Your task to perform on an android device: clear all cookies in the chrome app Image 0: 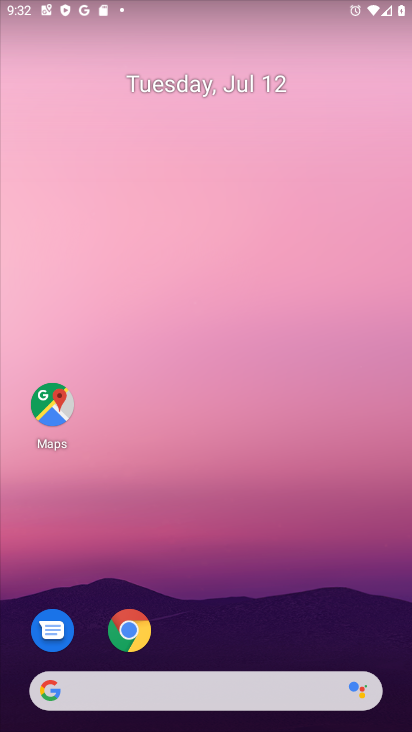
Step 0: click (125, 629)
Your task to perform on an android device: clear all cookies in the chrome app Image 1: 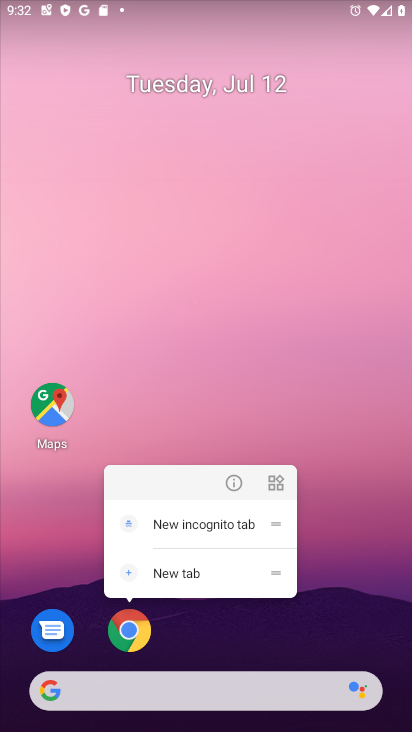
Step 1: click (130, 634)
Your task to perform on an android device: clear all cookies in the chrome app Image 2: 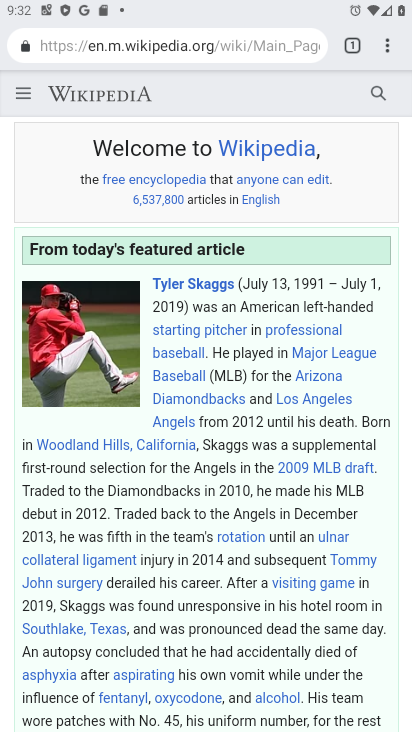
Step 2: click (385, 46)
Your task to perform on an android device: clear all cookies in the chrome app Image 3: 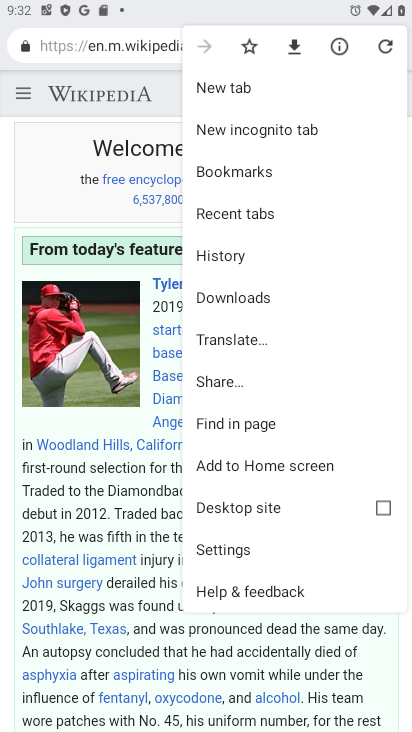
Step 3: click (233, 541)
Your task to perform on an android device: clear all cookies in the chrome app Image 4: 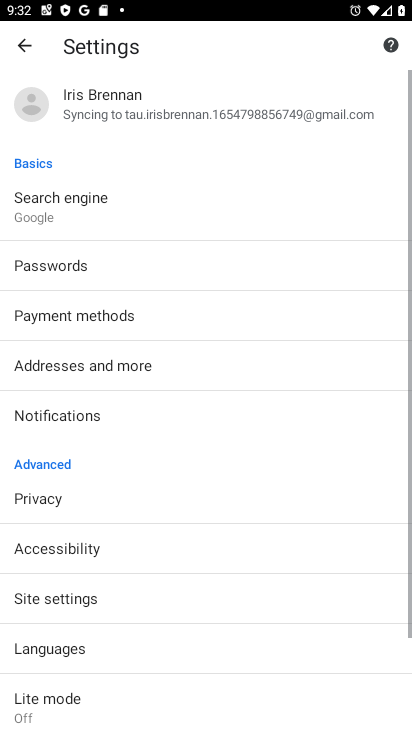
Step 4: click (50, 482)
Your task to perform on an android device: clear all cookies in the chrome app Image 5: 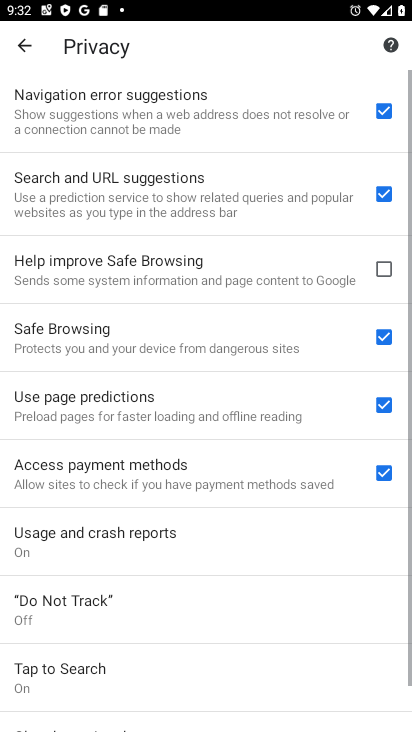
Step 5: drag from (98, 636) to (44, 128)
Your task to perform on an android device: clear all cookies in the chrome app Image 6: 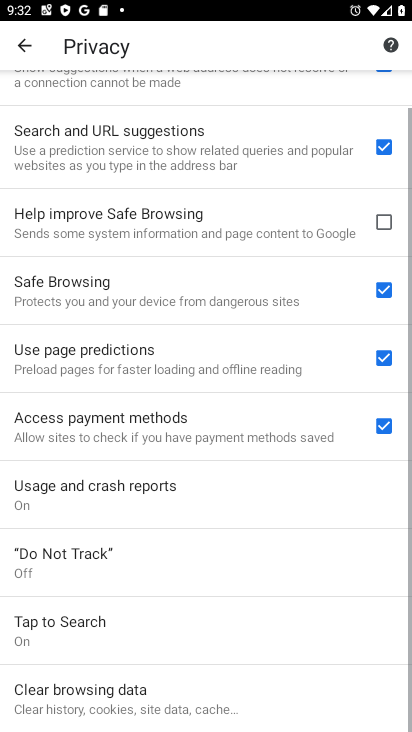
Step 6: click (46, 713)
Your task to perform on an android device: clear all cookies in the chrome app Image 7: 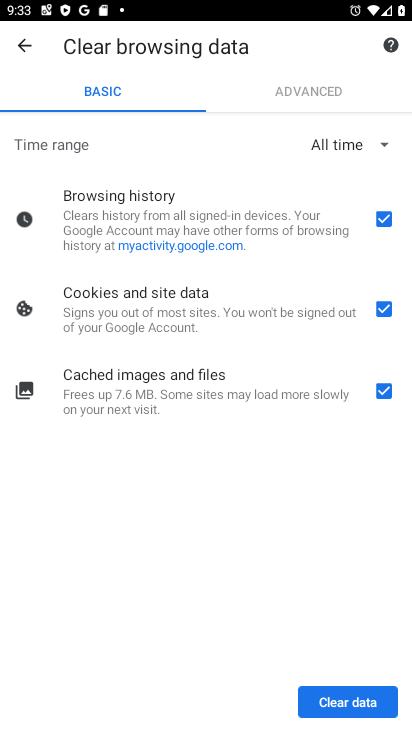
Step 7: click (388, 211)
Your task to perform on an android device: clear all cookies in the chrome app Image 8: 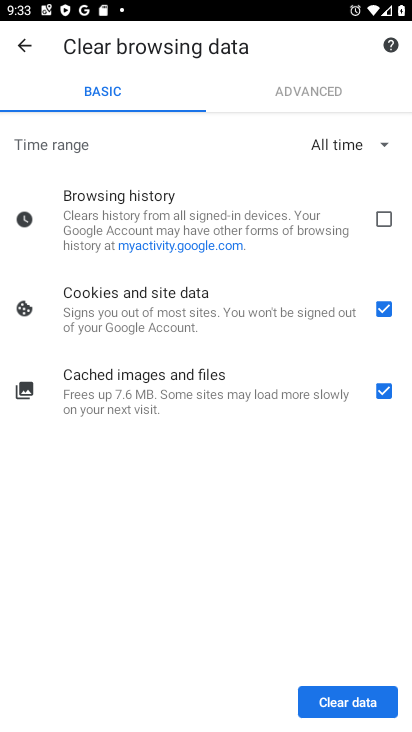
Step 8: click (381, 394)
Your task to perform on an android device: clear all cookies in the chrome app Image 9: 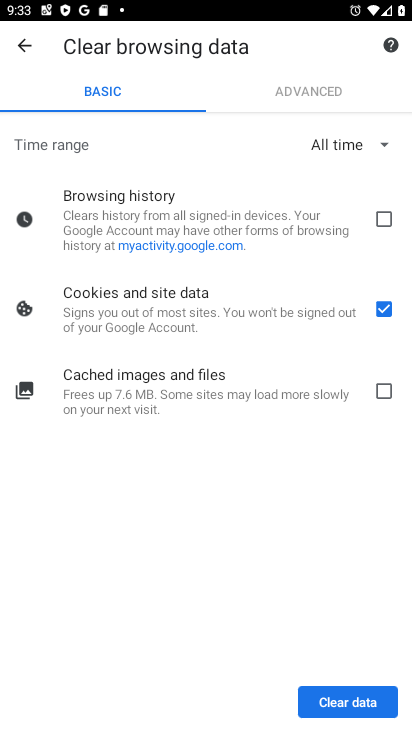
Step 9: click (333, 697)
Your task to perform on an android device: clear all cookies in the chrome app Image 10: 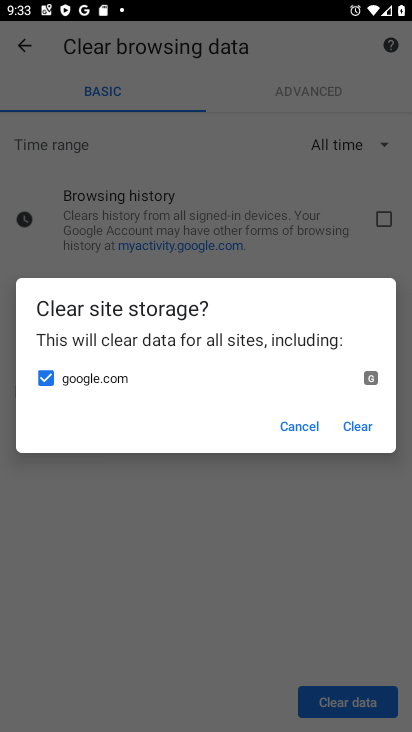
Step 10: click (356, 411)
Your task to perform on an android device: clear all cookies in the chrome app Image 11: 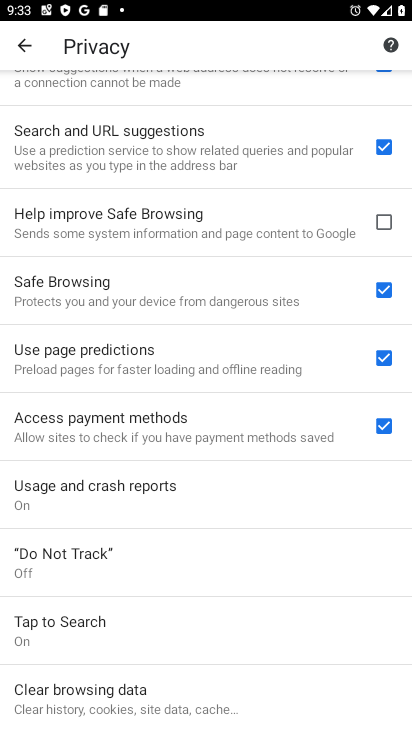
Step 11: task complete